Your task to perform on an android device: Turn on the flashlight Image 0: 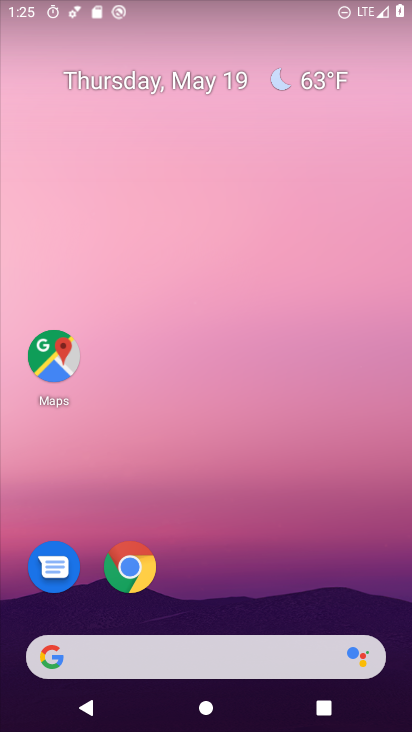
Step 0: drag from (279, 21) to (302, 519)
Your task to perform on an android device: Turn on the flashlight Image 1: 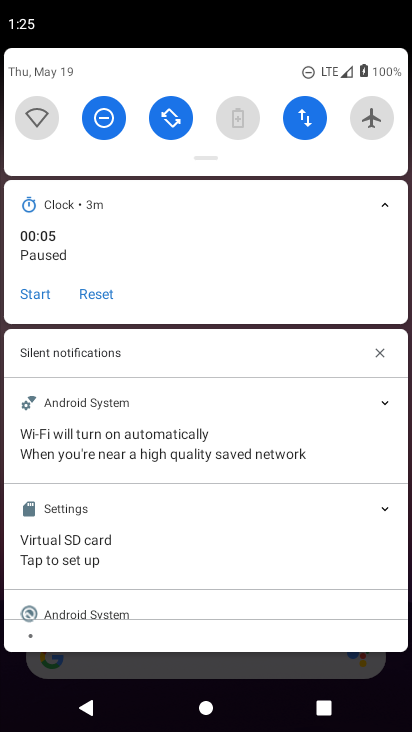
Step 1: task complete